Your task to perform on an android device: check data usage Image 0: 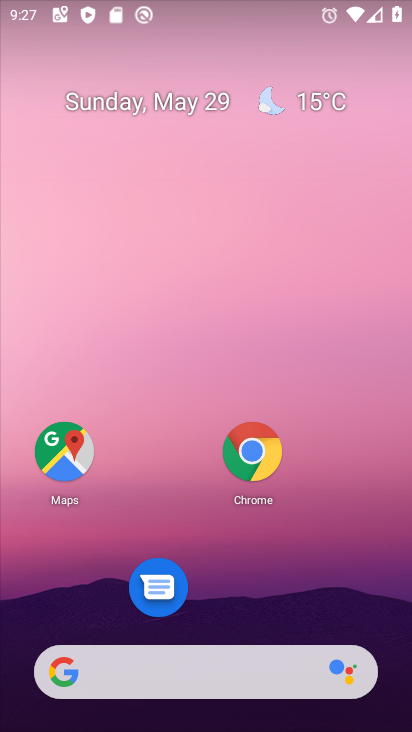
Step 0: task complete